Your task to perform on an android device: open a new tab in the chrome app Image 0: 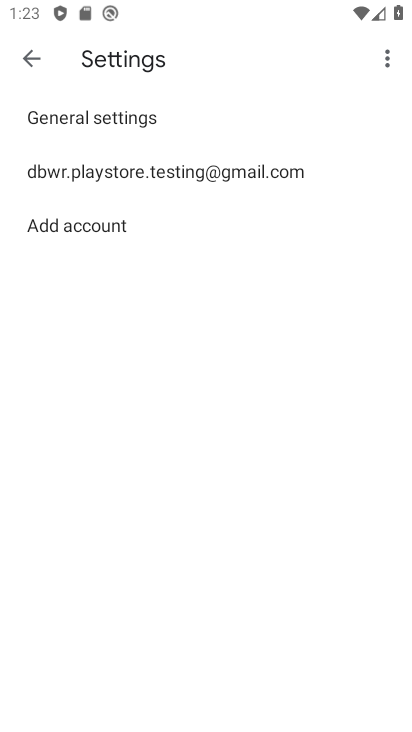
Step 0: press home button
Your task to perform on an android device: open a new tab in the chrome app Image 1: 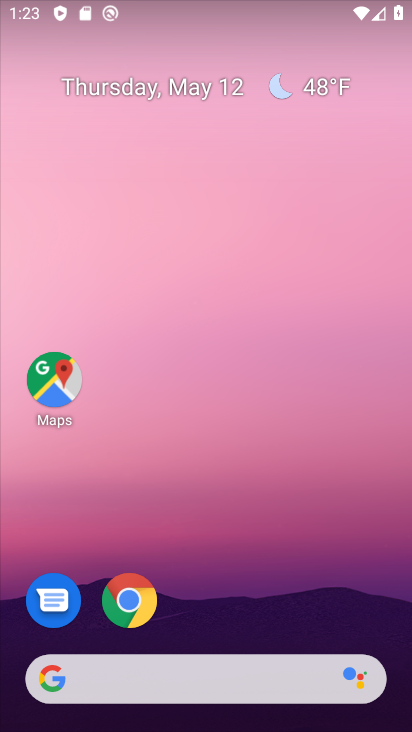
Step 1: click (129, 600)
Your task to perform on an android device: open a new tab in the chrome app Image 2: 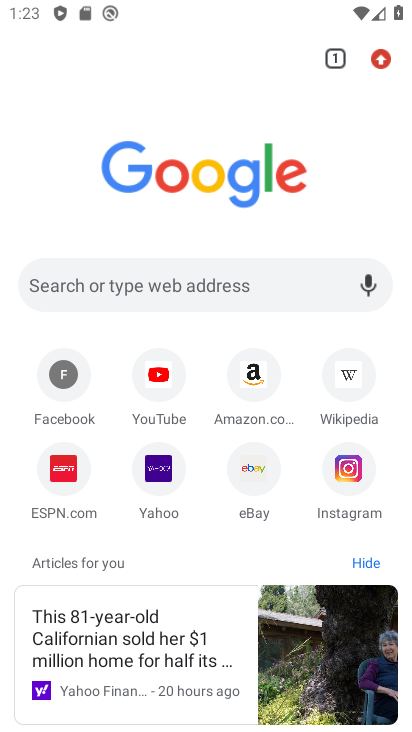
Step 2: task complete